Your task to perform on an android device: Open Chrome and go to settings Image 0: 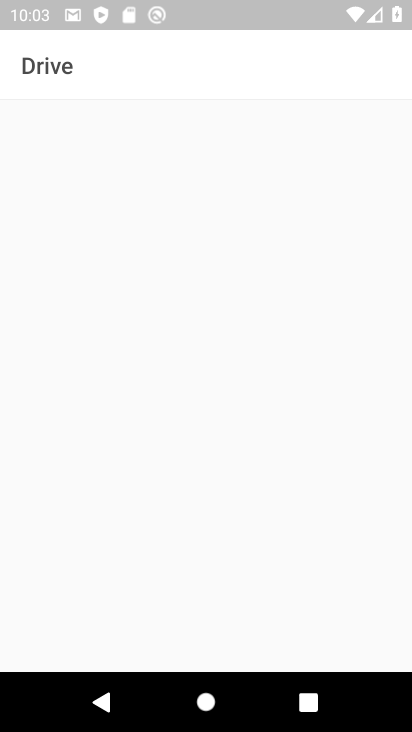
Step 0: press back button
Your task to perform on an android device: Open Chrome and go to settings Image 1: 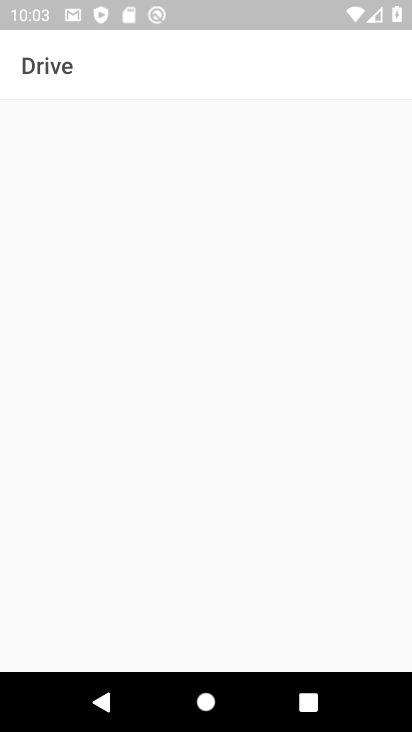
Step 1: press back button
Your task to perform on an android device: Open Chrome and go to settings Image 2: 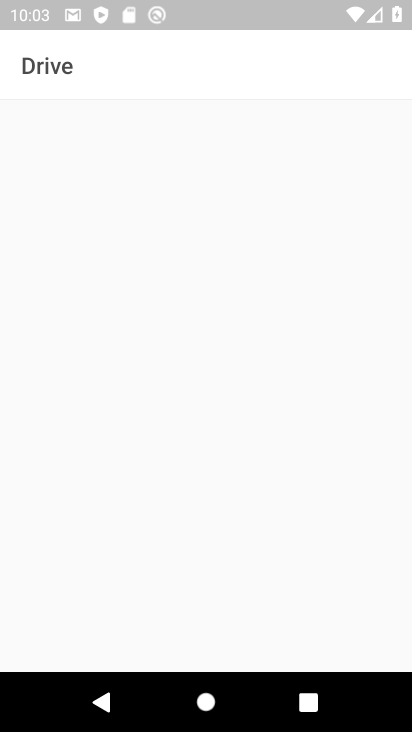
Step 2: press home button
Your task to perform on an android device: Open Chrome and go to settings Image 3: 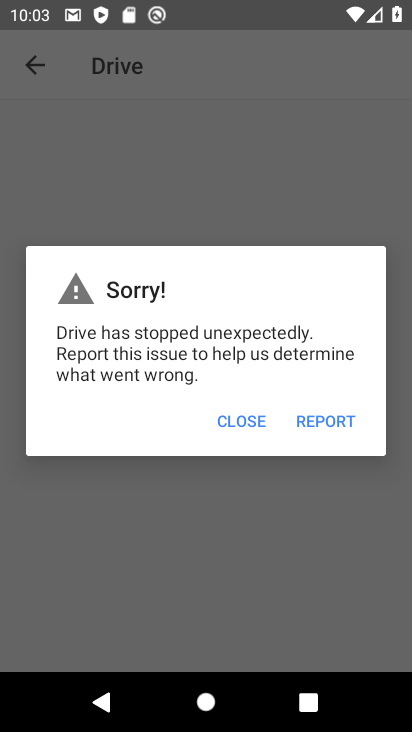
Step 3: press back button
Your task to perform on an android device: Open Chrome and go to settings Image 4: 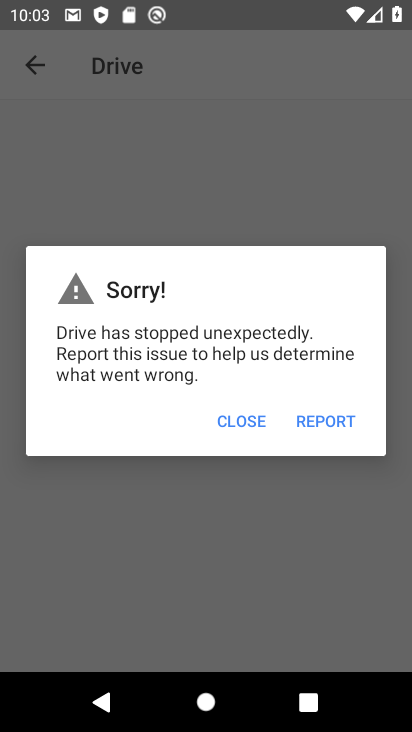
Step 4: press home button
Your task to perform on an android device: Open Chrome and go to settings Image 5: 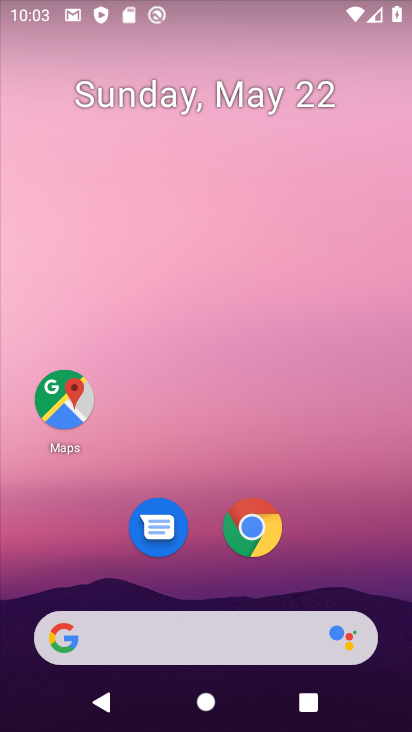
Step 5: press back button
Your task to perform on an android device: Open Chrome and go to settings Image 6: 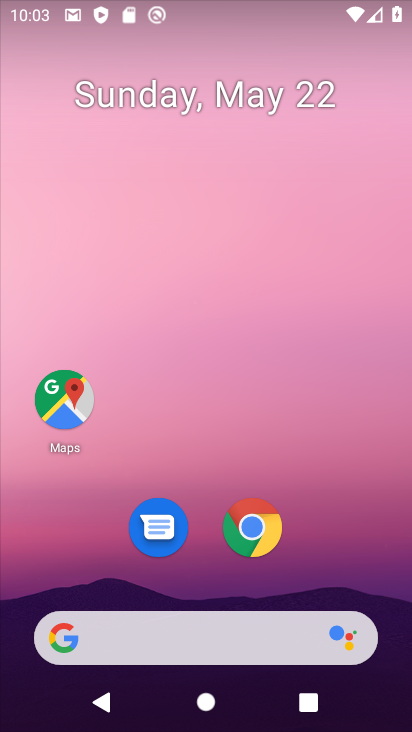
Step 6: drag from (310, 499) to (269, 22)
Your task to perform on an android device: Open Chrome and go to settings Image 7: 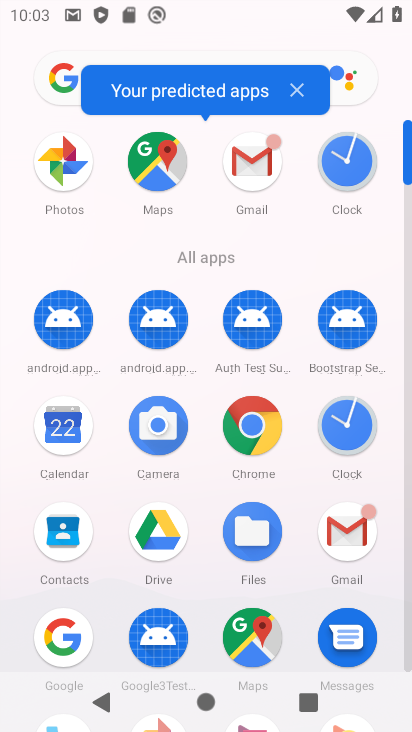
Step 7: drag from (7, 563) to (7, 257)
Your task to perform on an android device: Open Chrome and go to settings Image 8: 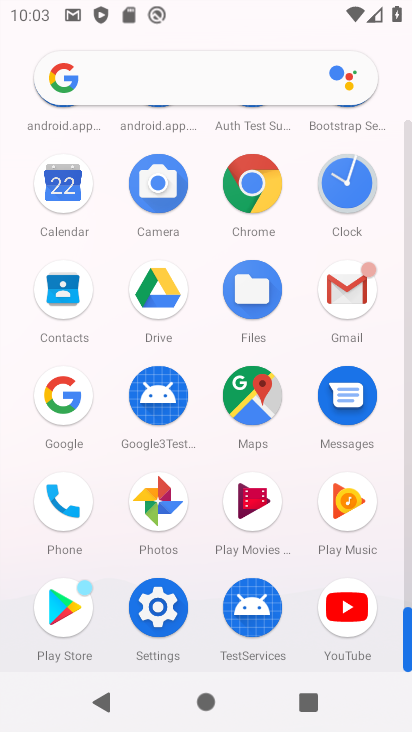
Step 8: click (256, 178)
Your task to perform on an android device: Open Chrome and go to settings Image 9: 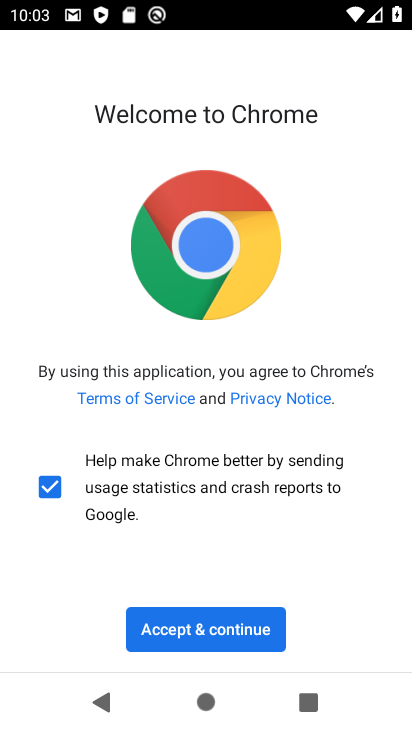
Step 9: click (207, 624)
Your task to perform on an android device: Open Chrome and go to settings Image 10: 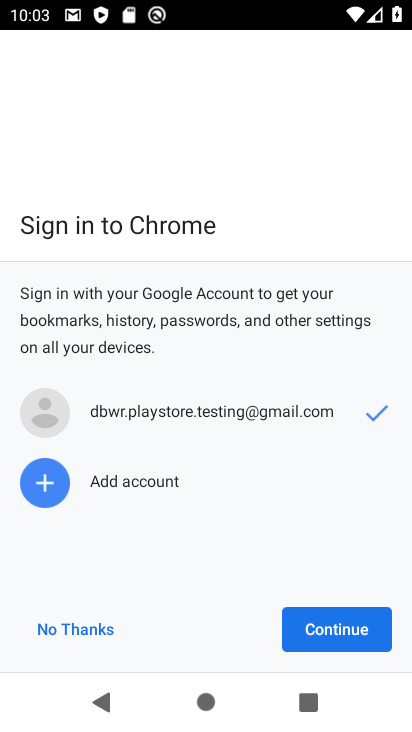
Step 10: click (340, 613)
Your task to perform on an android device: Open Chrome and go to settings Image 11: 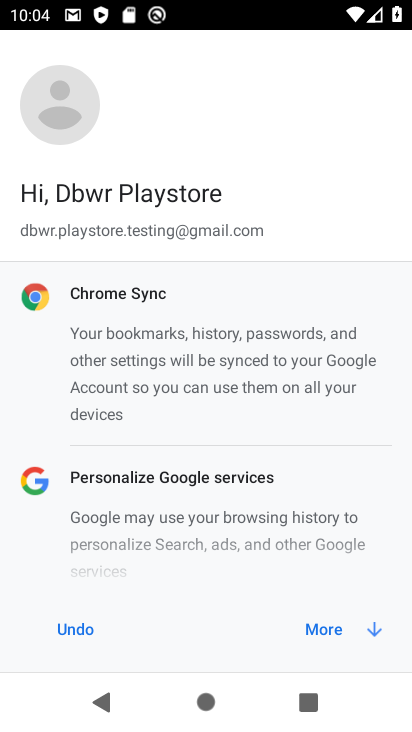
Step 11: click (306, 625)
Your task to perform on an android device: Open Chrome and go to settings Image 12: 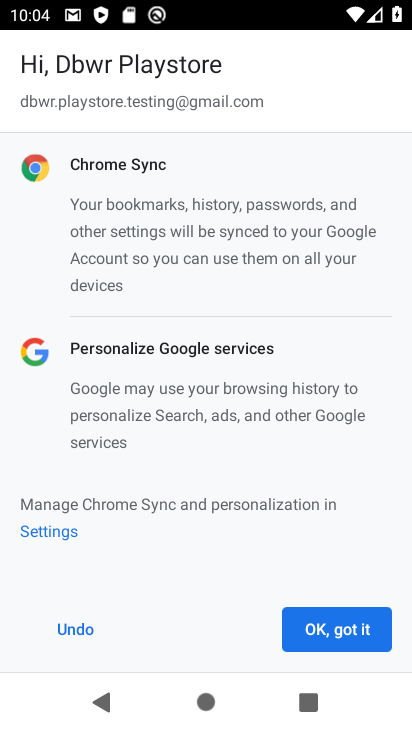
Step 12: click (317, 634)
Your task to perform on an android device: Open Chrome and go to settings Image 13: 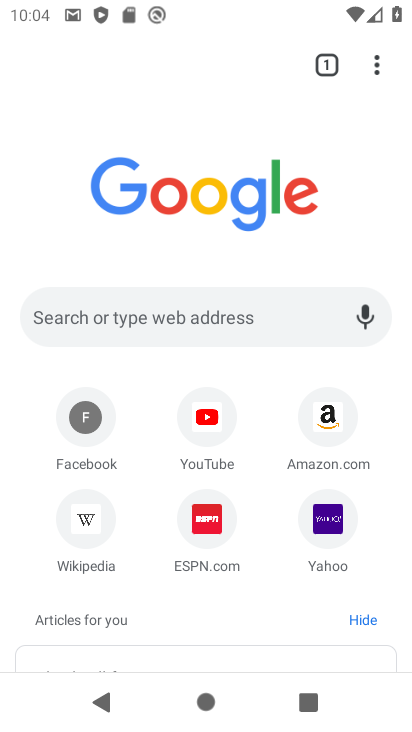
Step 13: task complete